Your task to perform on an android device: Open calendar and show me the fourth week of next month Image 0: 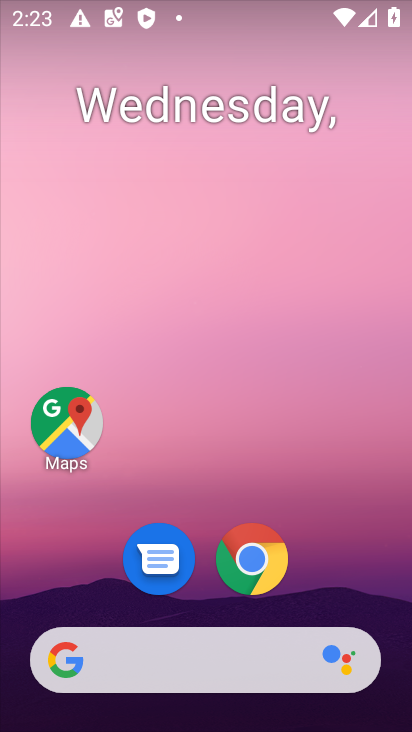
Step 0: drag from (212, 620) to (204, 41)
Your task to perform on an android device: Open calendar and show me the fourth week of next month Image 1: 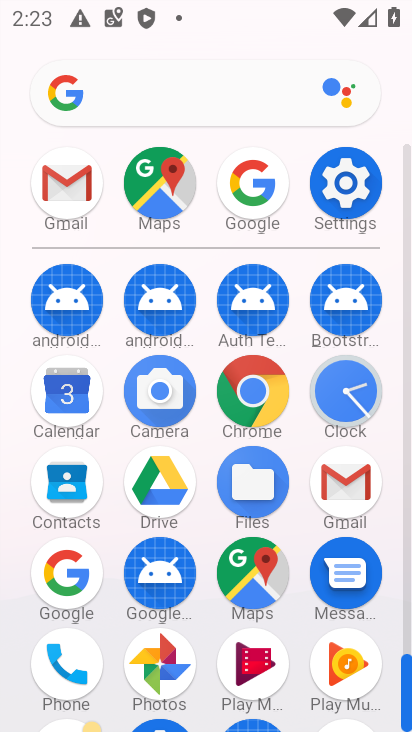
Step 1: click (67, 398)
Your task to perform on an android device: Open calendar and show me the fourth week of next month Image 2: 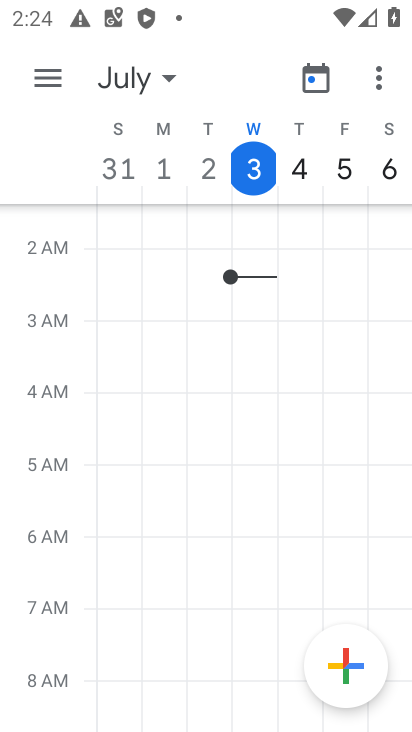
Step 2: click (169, 80)
Your task to perform on an android device: Open calendar and show me the fourth week of next month Image 3: 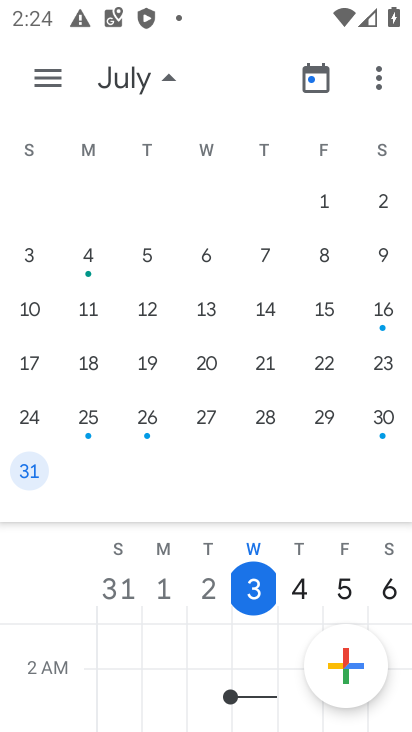
Step 3: drag from (340, 292) to (11, 410)
Your task to perform on an android device: Open calendar and show me the fourth week of next month Image 4: 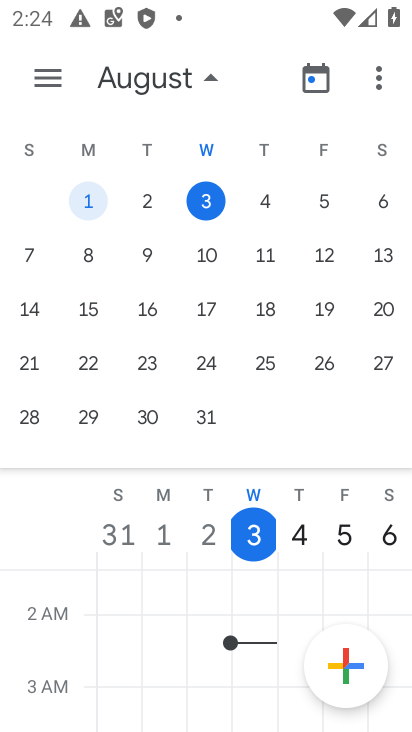
Step 4: drag from (335, 300) to (19, 320)
Your task to perform on an android device: Open calendar and show me the fourth week of next month Image 5: 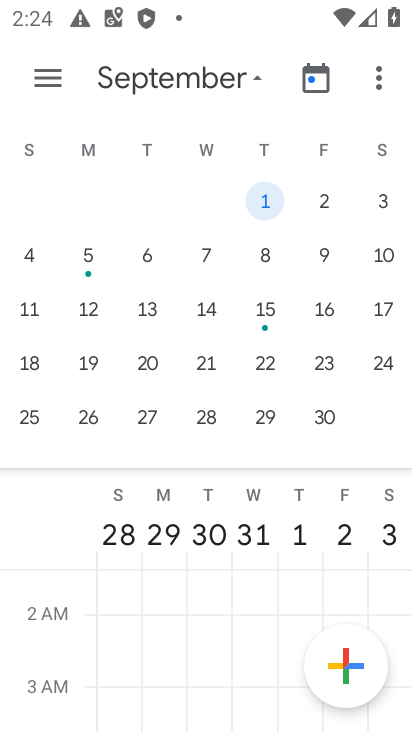
Step 5: click (89, 412)
Your task to perform on an android device: Open calendar and show me the fourth week of next month Image 6: 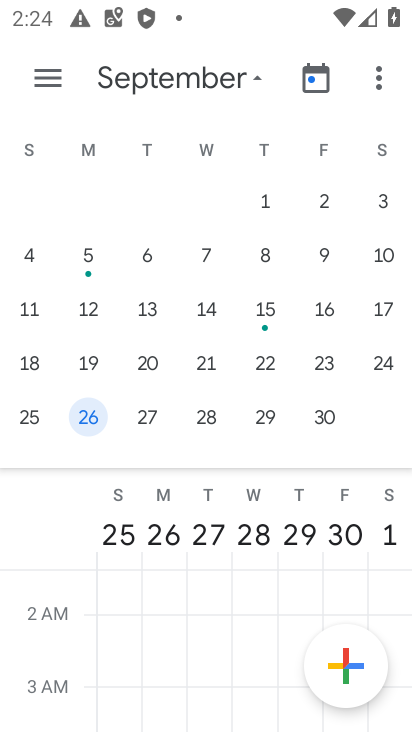
Step 6: click (48, 88)
Your task to perform on an android device: Open calendar and show me the fourth week of next month Image 7: 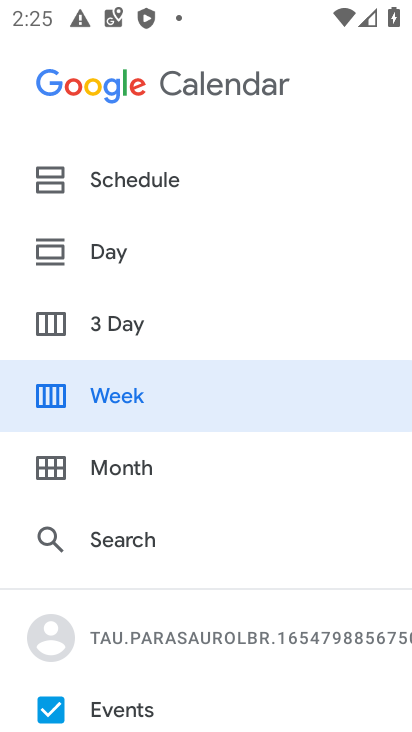
Step 7: click (112, 394)
Your task to perform on an android device: Open calendar and show me the fourth week of next month Image 8: 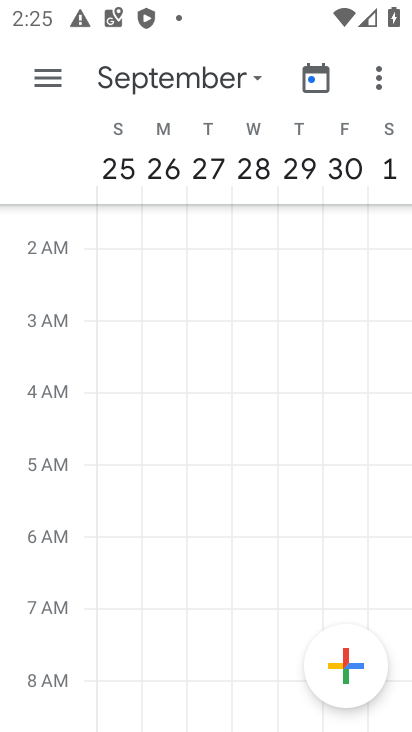
Step 8: task complete